Your task to perform on an android device: Open Youtube and go to the subscriptions tab Image 0: 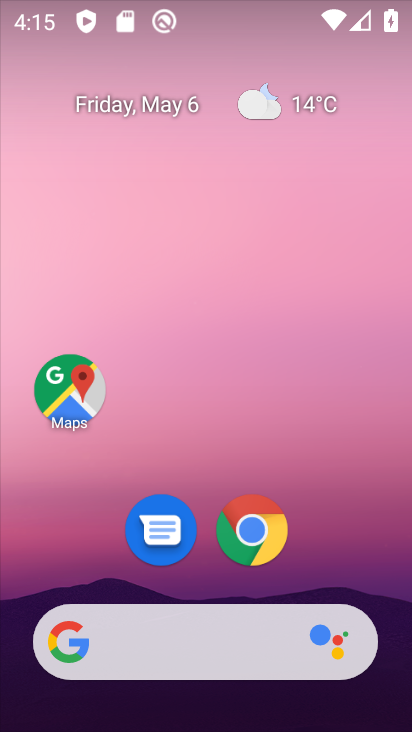
Step 0: drag from (390, 519) to (366, 142)
Your task to perform on an android device: Open Youtube and go to the subscriptions tab Image 1: 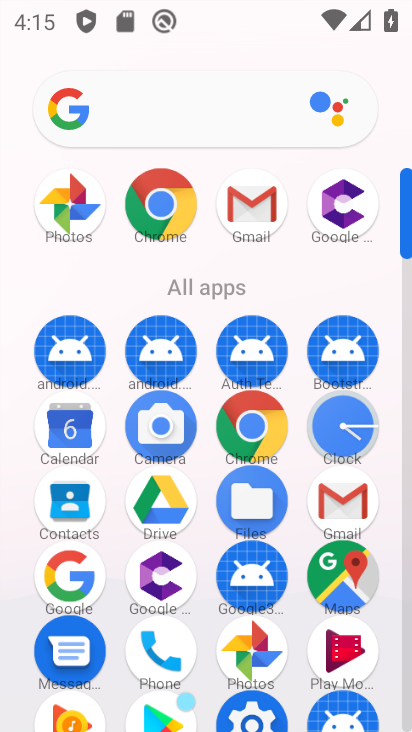
Step 1: drag from (393, 616) to (376, 312)
Your task to perform on an android device: Open Youtube and go to the subscriptions tab Image 2: 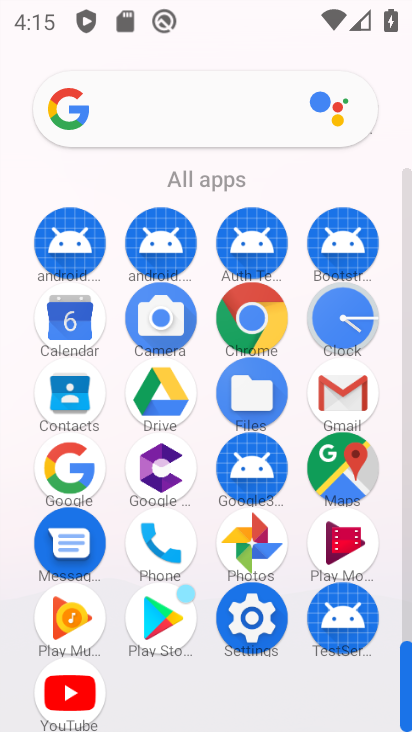
Step 2: click (91, 683)
Your task to perform on an android device: Open Youtube and go to the subscriptions tab Image 3: 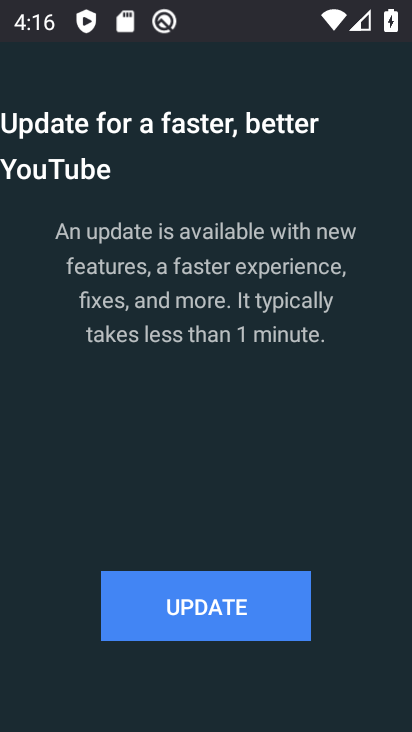
Step 3: click (227, 619)
Your task to perform on an android device: Open Youtube and go to the subscriptions tab Image 4: 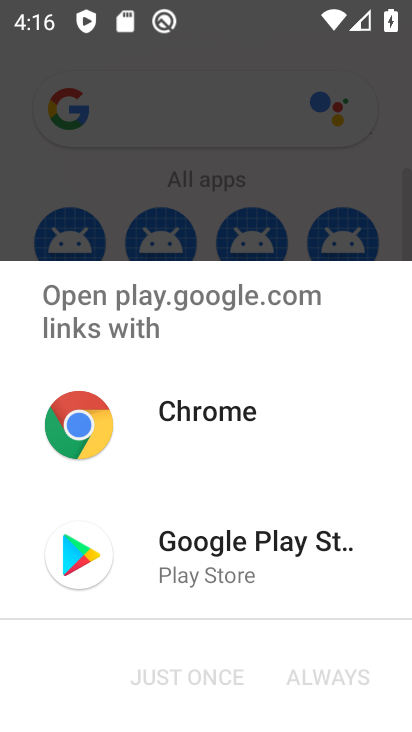
Step 4: click (219, 557)
Your task to perform on an android device: Open Youtube and go to the subscriptions tab Image 5: 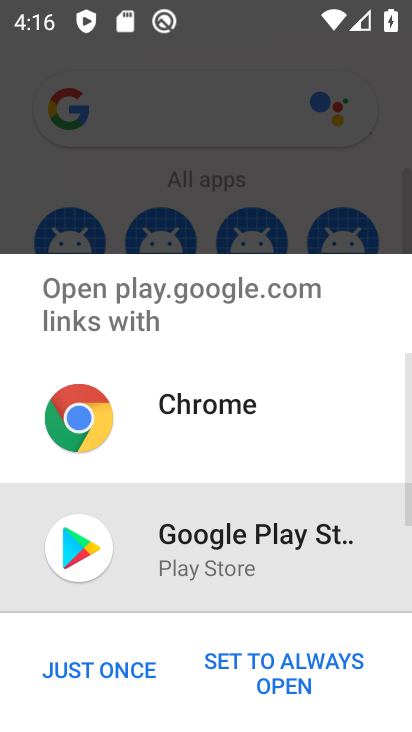
Step 5: click (127, 679)
Your task to perform on an android device: Open Youtube and go to the subscriptions tab Image 6: 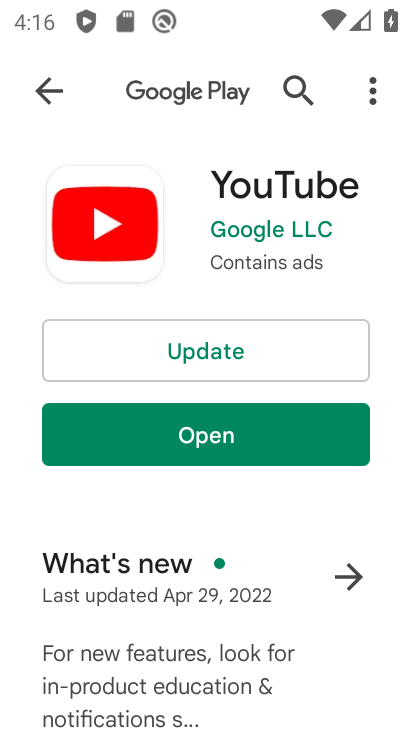
Step 6: click (244, 364)
Your task to perform on an android device: Open Youtube and go to the subscriptions tab Image 7: 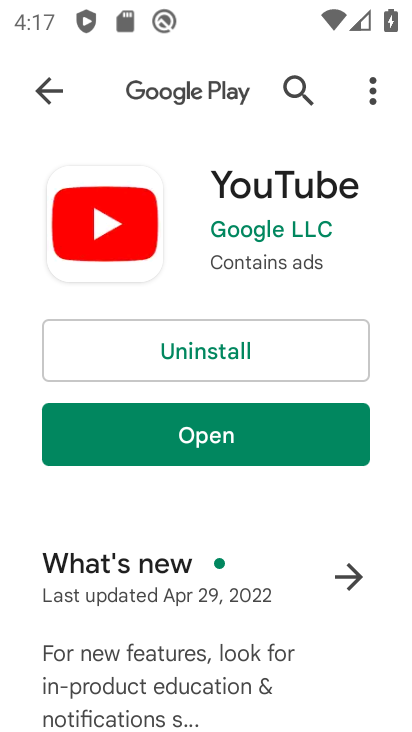
Step 7: click (187, 424)
Your task to perform on an android device: Open Youtube and go to the subscriptions tab Image 8: 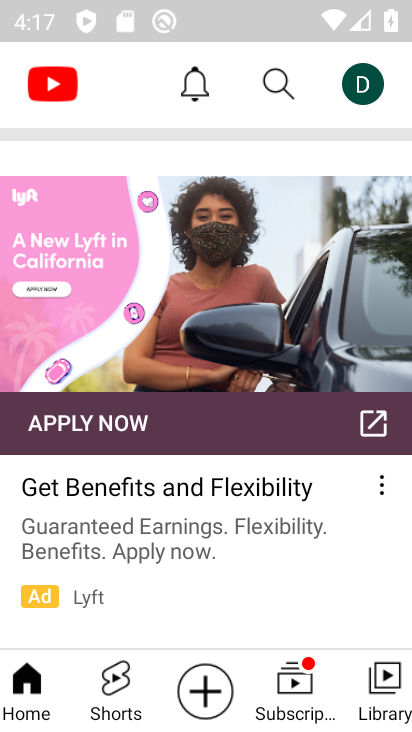
Step 8: click (295, 667)
Your task to perform on an android device: Open Youtube and go to the subscriptions tab Image 9: 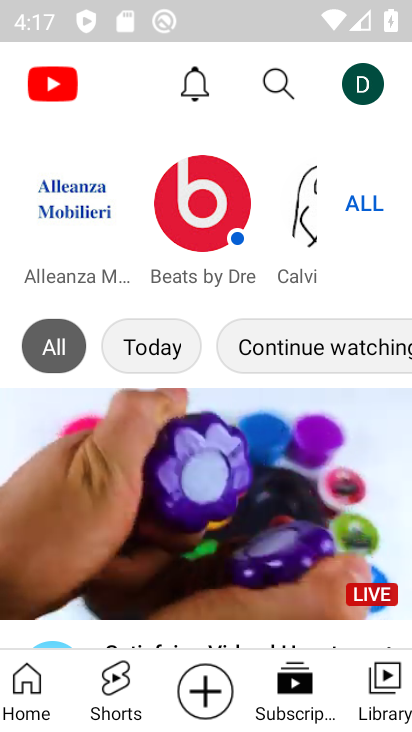
Step 9: task complete